Your task to perform on an android device: Turn on the flashlight Image 0: 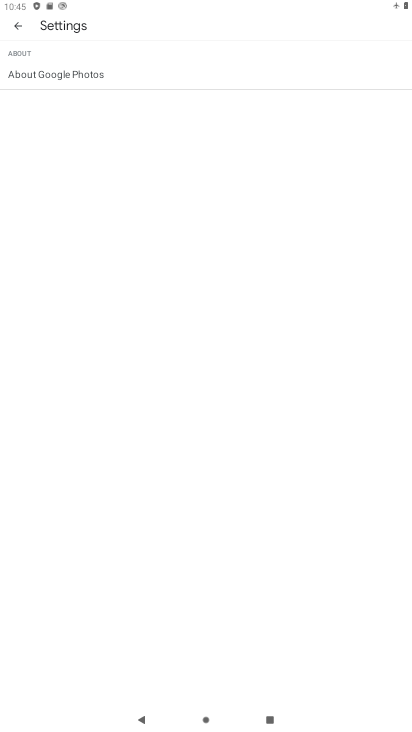
Step 0: press home button
Your task to perform on an android device: Turn on the flashlight Image 1: 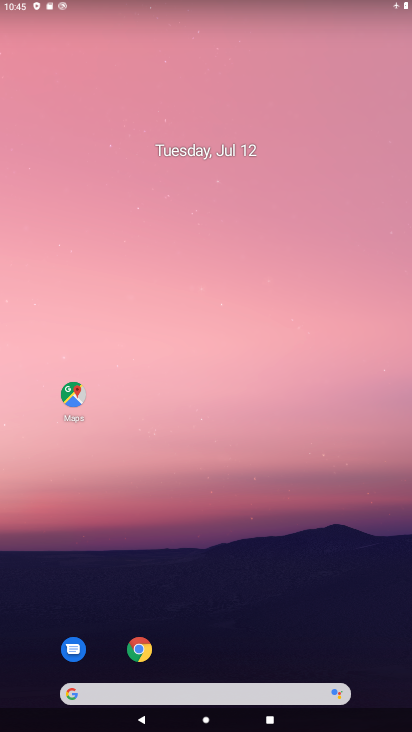
Step 1: drag from (268, 18) to (299, 495)
Your task to perform on an android device: Turn on the flashlight Image 2: 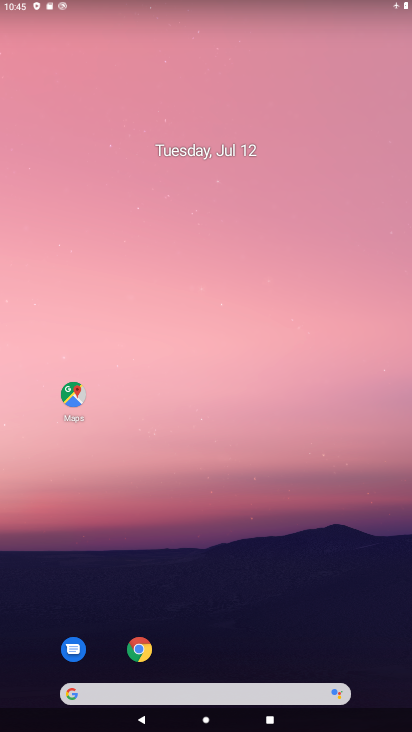
Step 2: drag from (207, 13) to (226, 528)
Your task to perform on an android device: Turn on the flashlight Image 3: 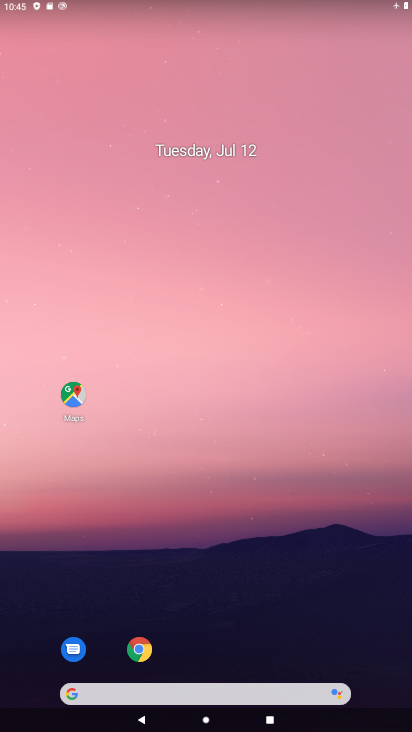
Step 3: drag from (218, 23) to (241, 455)
Your task to perform on an android device: Turn on the flashlight Image 4: 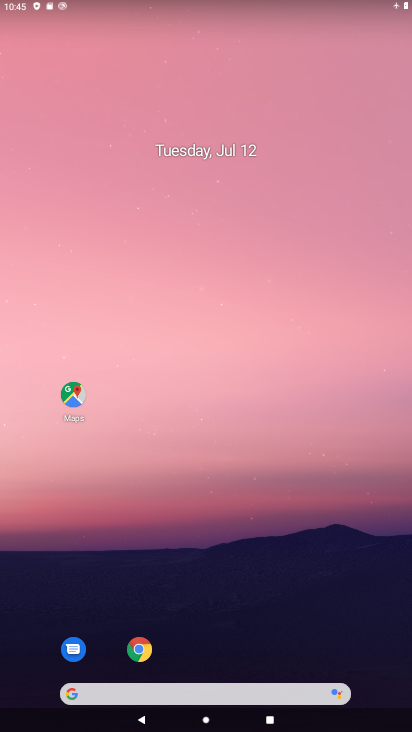
Step 4: drag from (244, 16) to (252, 634)
Your task to perform on an android device: Turn on the flashlight Image 5: 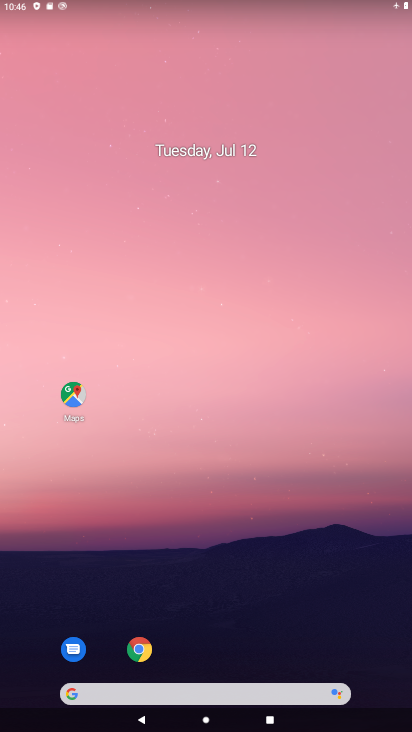
Step 5: drag from (249, 639) to (250, 102)
Your task to perform on an android device: Turn on the flashlight Image 6: 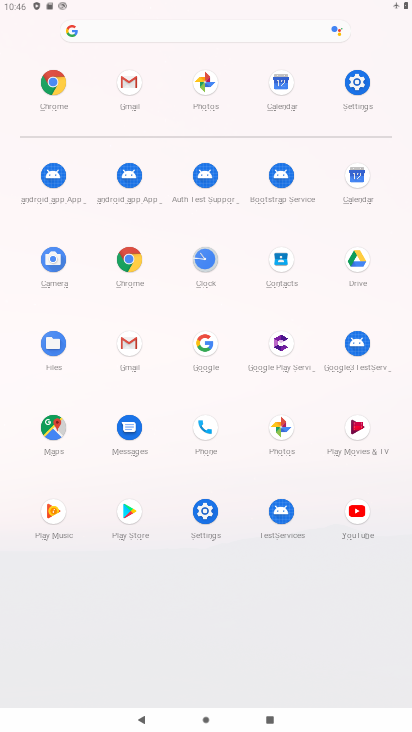
Step 6: drag from (220, 5) to (210, 532)
Your task to perform on an android device: Turn on the flashlight Image 7: 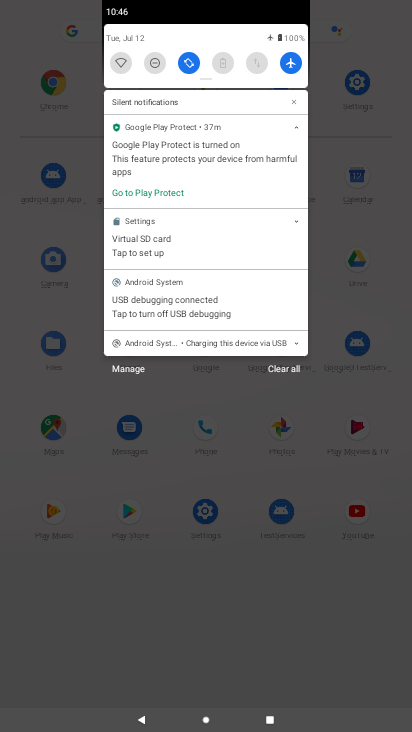
Step 7: drag from (205, 78) to (206, 437)
Your task to perform on an android device: Turn on the flashlight Image 8: 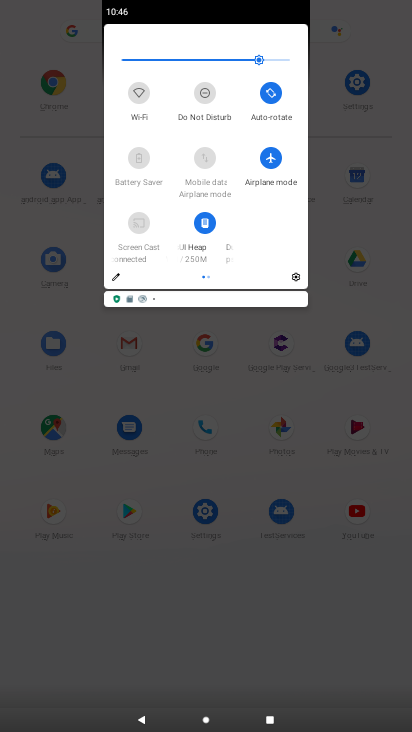
Step 8: click (110, 276)
Your task to perform on an android device: Turn on the flashlight Image 9: 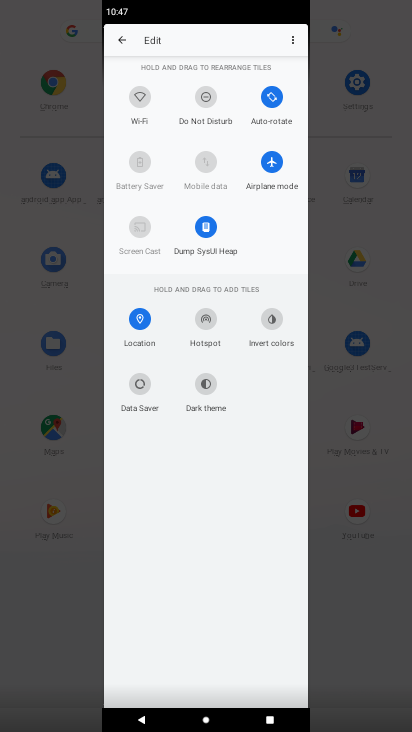
Step 9: task complete